Your task to perform on an android device: empty trash in the gmail app Image 0: 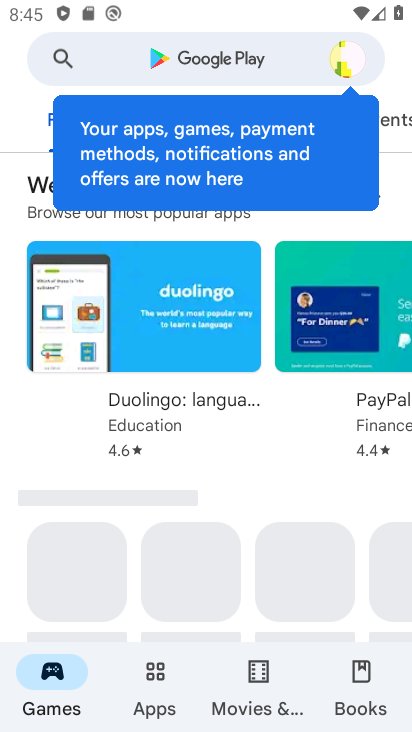
Step 0: press home button
Your task to perform on an android device: empty trash in the gmail app Image 1: 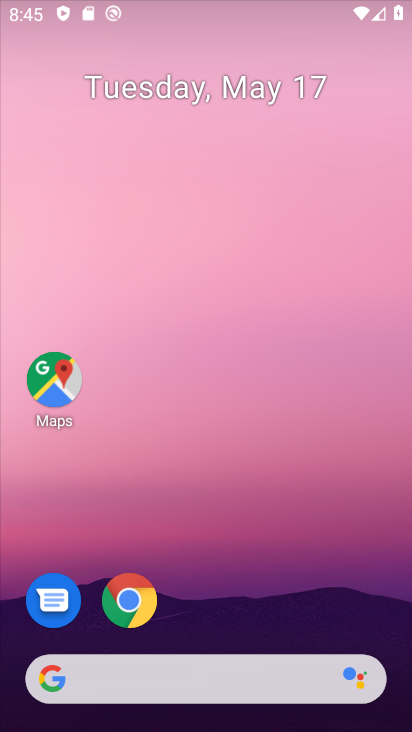
Step 1: drag from (316, 450) to (334, 76)
Your task to perform on an android device: empty trash in the gmail app Image 2: 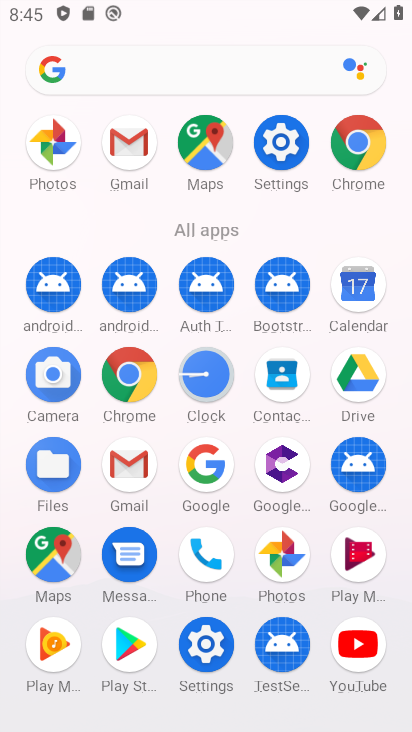
Step 2: click (128, 157)
Your task to perform on an android device: empty trash in the gmail app Image 3: 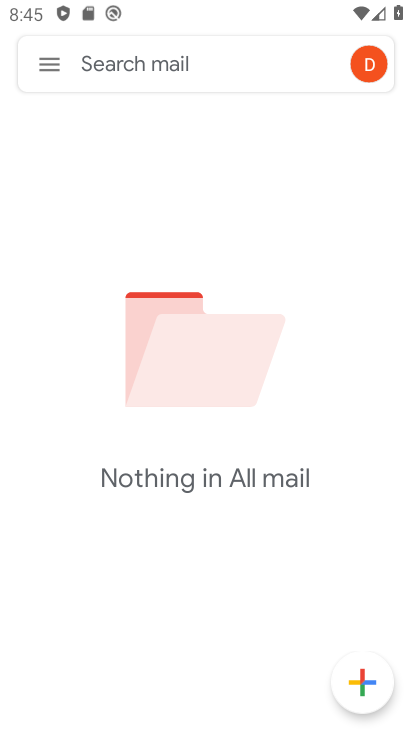
Step 3: click (47, 67)
Your task to perform on an android device: empty trash in the gmail app Image 4: 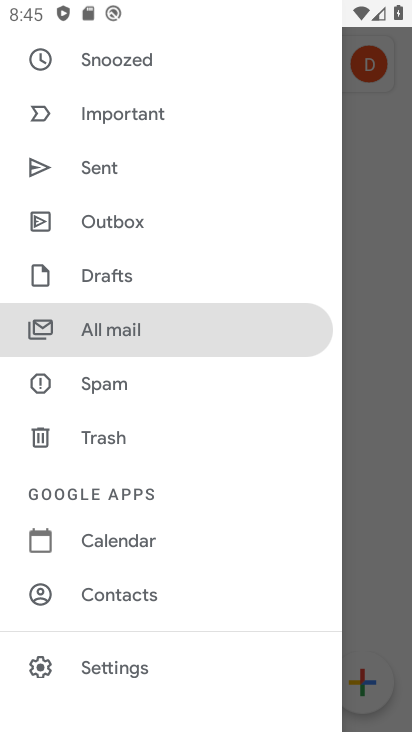
Step 4: click (132, 436)
Your task to perform on an android device: empty trash in the gmail app Image 5: 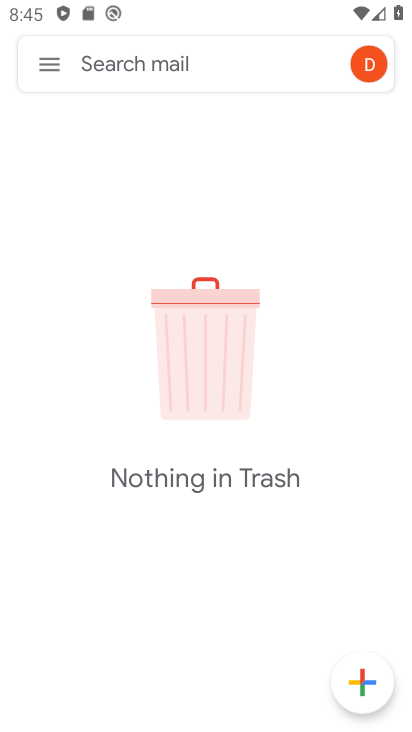
Step 5: task complete